Your task to perform on an android device: turn on the 24-hour format for clock Image 0: 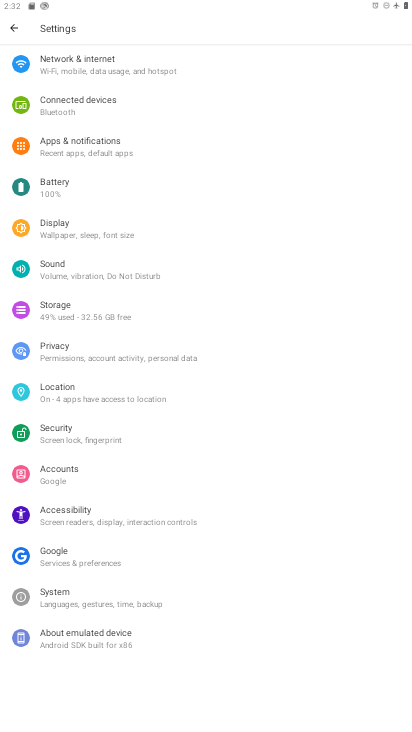
Step 0: press home button
Your task to perform on an android device: turn on the 24-hour format for clock Image 1: 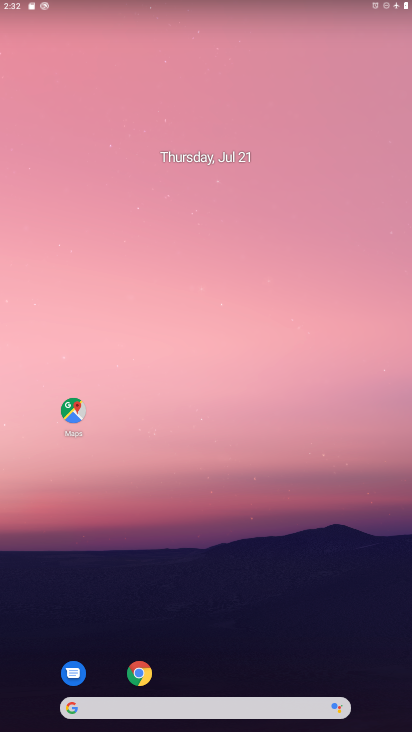
Step 1: drag from (268, 674) to (261, 89)
Your task to perform on an android device: turn on the 24-hour format for clock Image 2: 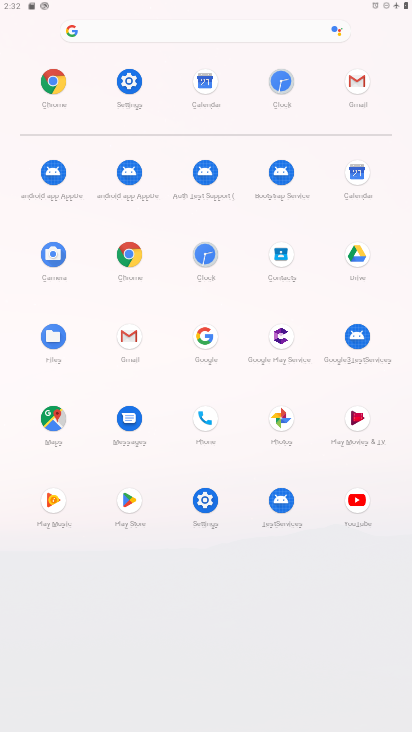
Step 2: click (197, 244)
Your task to perform on an android device: turn on the 24-hour format for clock Image 3: 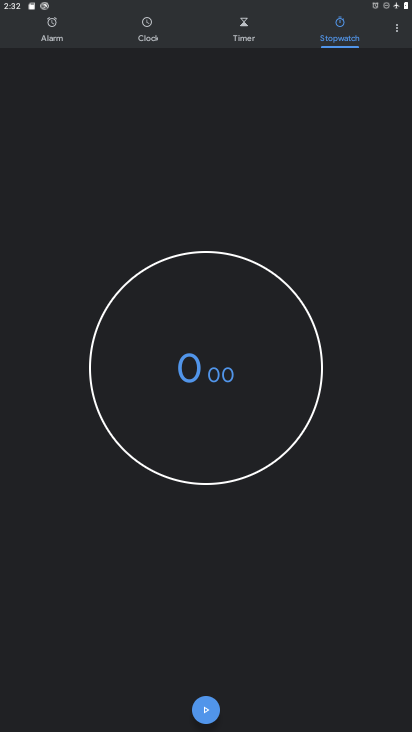
Step 3: click (400, 33)
Your task to perform on an android device: turn on the 24-hour format for clock Image 4: 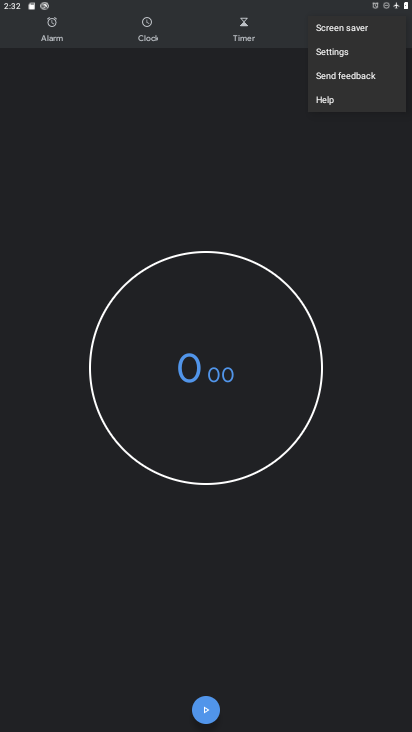
Step 4: click (332, 45)
Your task to perform on an android device: turn on the 24-hour format for clock Image 5: 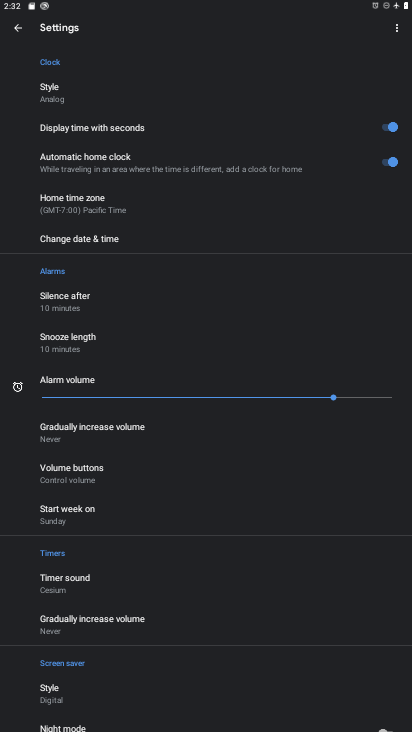
Step 5: click (93, 245)
Your task to perform on an android device: turn on the 24-hour format for clock Image 6: 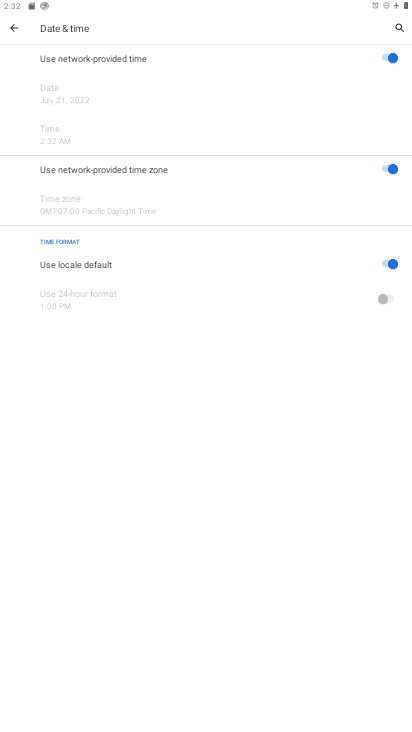
Step 6: click (387, 257)
Your task to perform on an android device: turn on the 24-hour format for clock Image 7: 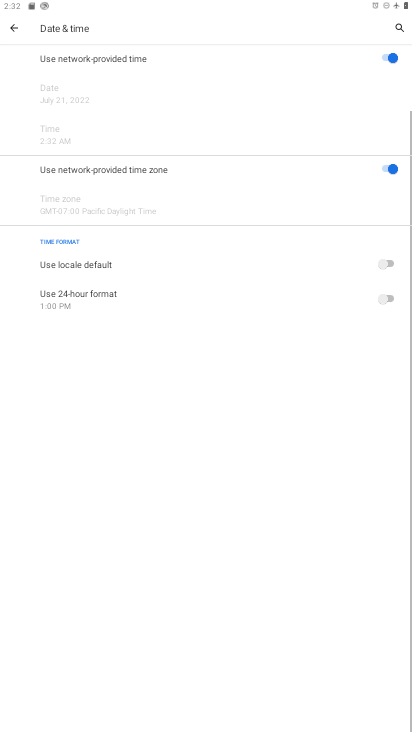
Step 7: click (389, 282)
Your task to perform on an android device: turn on the 24-hour format for clock Image 8: 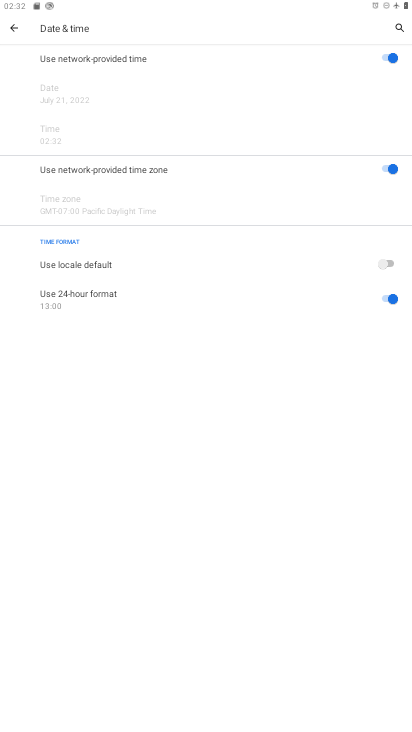
Step 8: task complete